Your task to perform on an android device: Do I have any events today? Image 0: 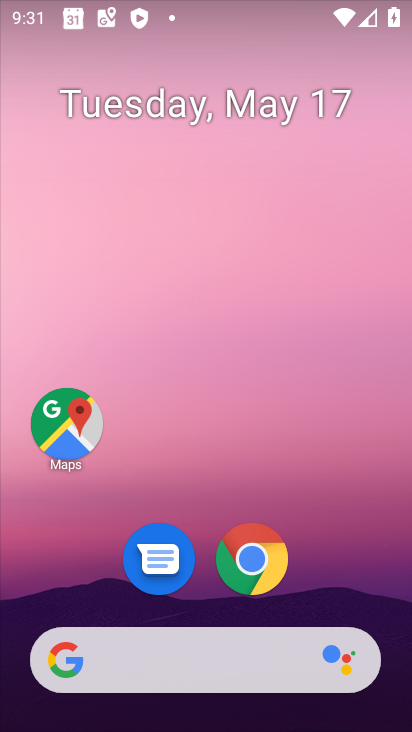
Step 0: drag from (252, 688) to (252, 177)
Your task to perform on an android device: Do I have any events today? Image 1: 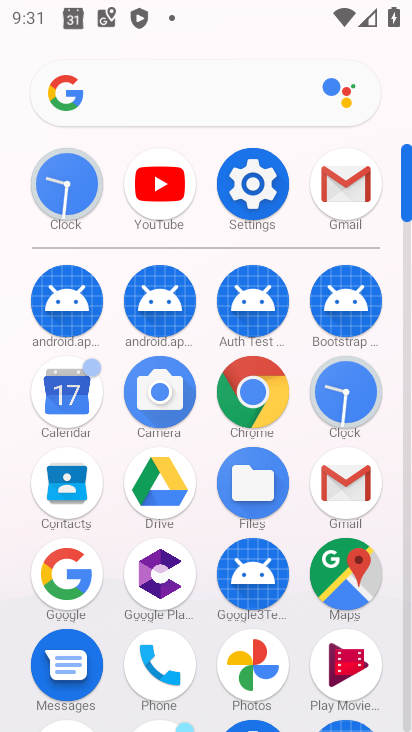
Step 1: click (67, 393)
Your task to perform on an android device: Do I have any events today? Image 2: 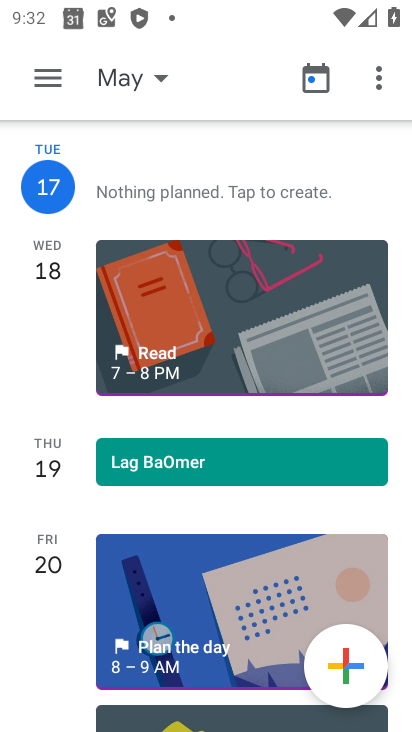
Step 2: task complete